Your task to perform on an android device: Turn off the flashlight Image 0: 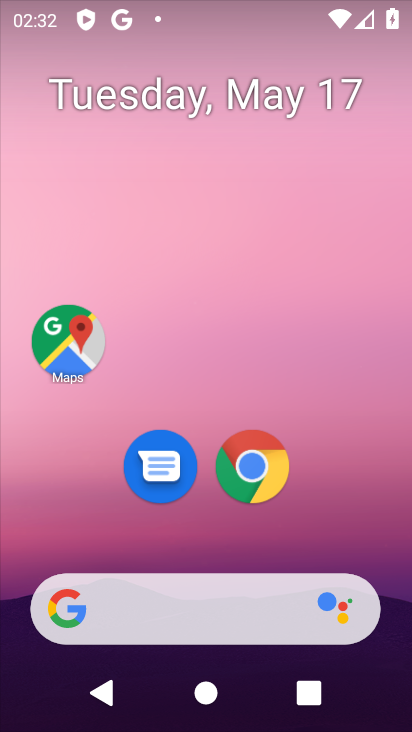
Step 0: drag from (358, 535) to (267, 140)
Your task to perform on an android device: Turn off the flashlight Image 1: 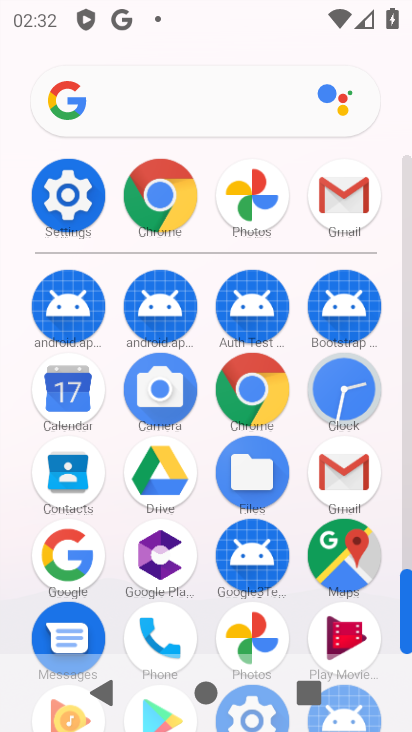
Step 1: click (74, 201)
Your task to perform on an android device: Turn off the flashlight Image 2: 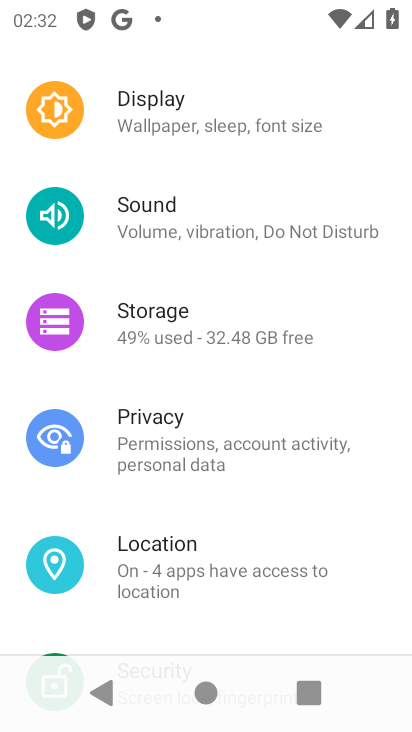
Step 2: click (192, 127)
Your task to perform on an android device: Turn off the flashlight Image 3: 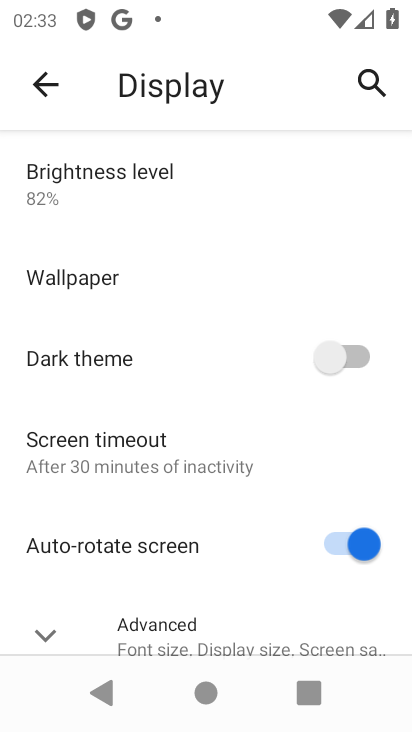
Step 3: task complete